Your task to perform on an android device: change the clock display to analog Image 0: 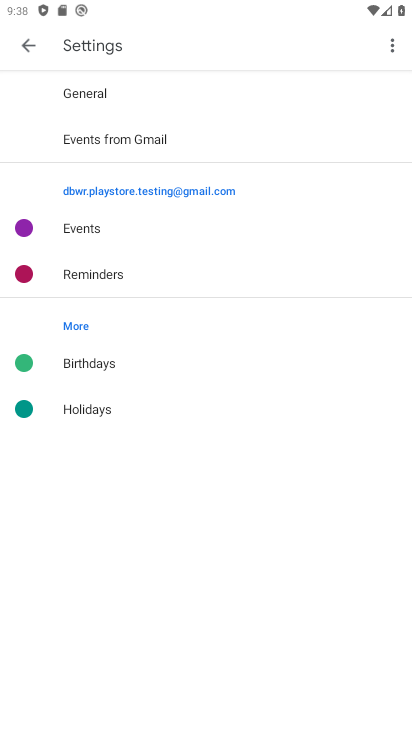
Step 0: press home button
Your task to perform on an android device: change the clock display to analog Image 1: 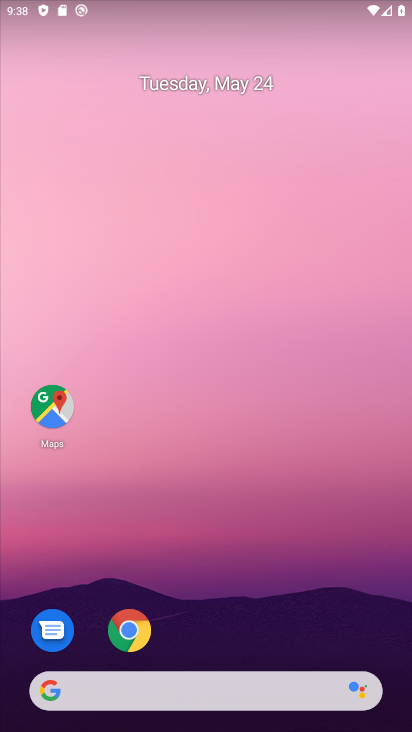
Step 1: drag from (185, 658) to (210, 73)
Your task to perform on an android device: change the clock display to analog Image 2: 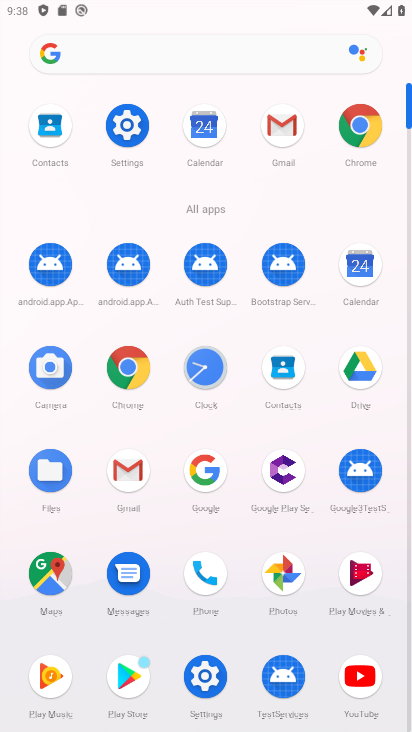
Step 2: click (203, 355)
Your task to perform on an android device: change the clock display to analog Image 3: 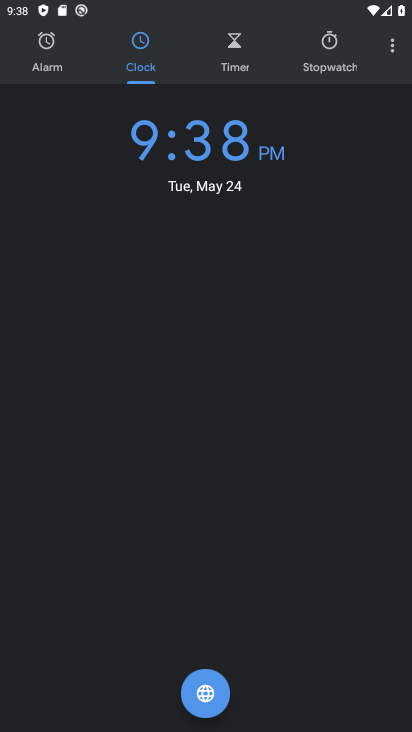
Step 3: click (387, 37)
Your task to perform on an android device: change the clock display to analog Image 4: 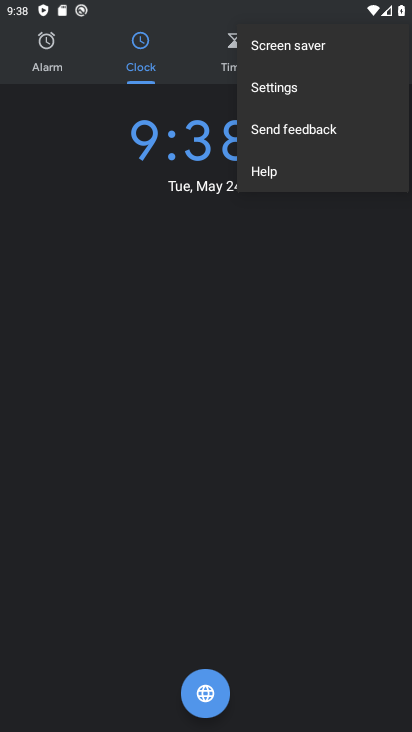
Step 4: click (311, 91)
Your task to perform on an android device: change the clock display to analog Image 5: 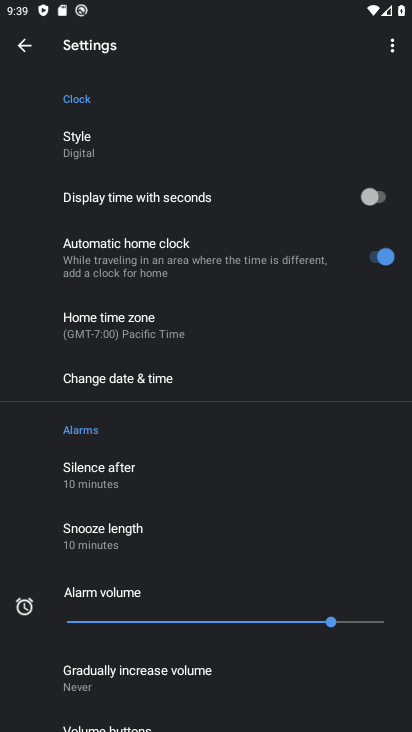
Step 5: click (119, 150)
Your task to perform on an android device: change the clock display to analog Image 6: 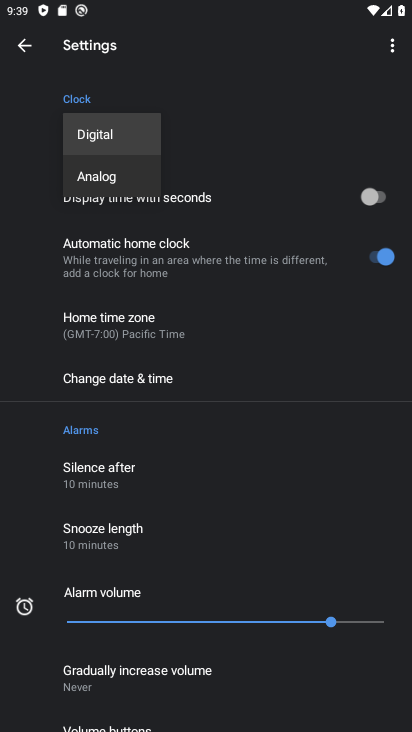
Step 6: click (116, 180)
Your task to perform on an android device: change the clock display to analog Image 7: 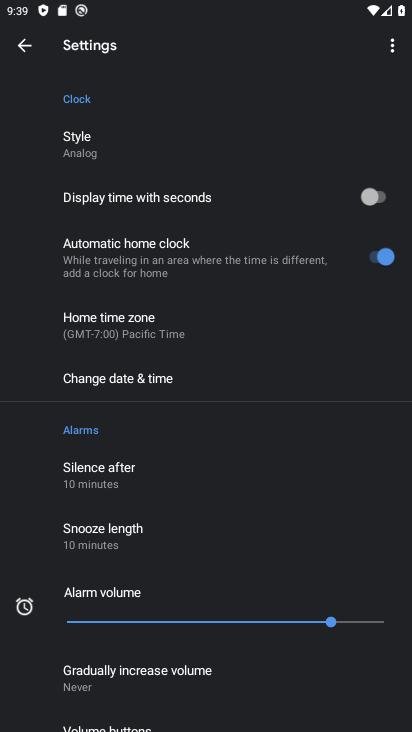
Step 7: task complete